Your task to perform on an android device: Clear the cart on newegg. Add "jbl flip 4" to the cart on newegg, then select checkout. Image 0: 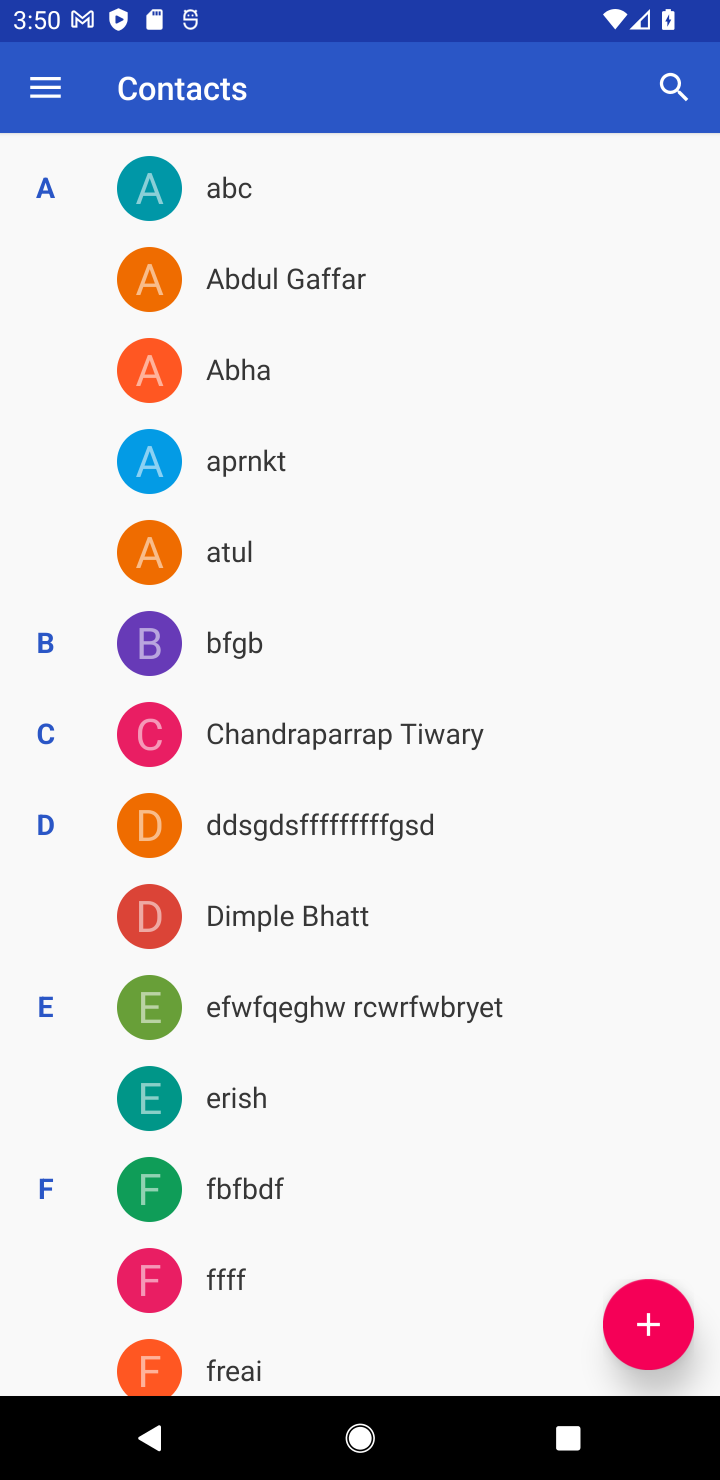
Step 0: press home button
Your task to perform on an android device: Clear the cart on newegg. Add "jbl flip 4" to the cart on newegg, then select checkout. Image 1: 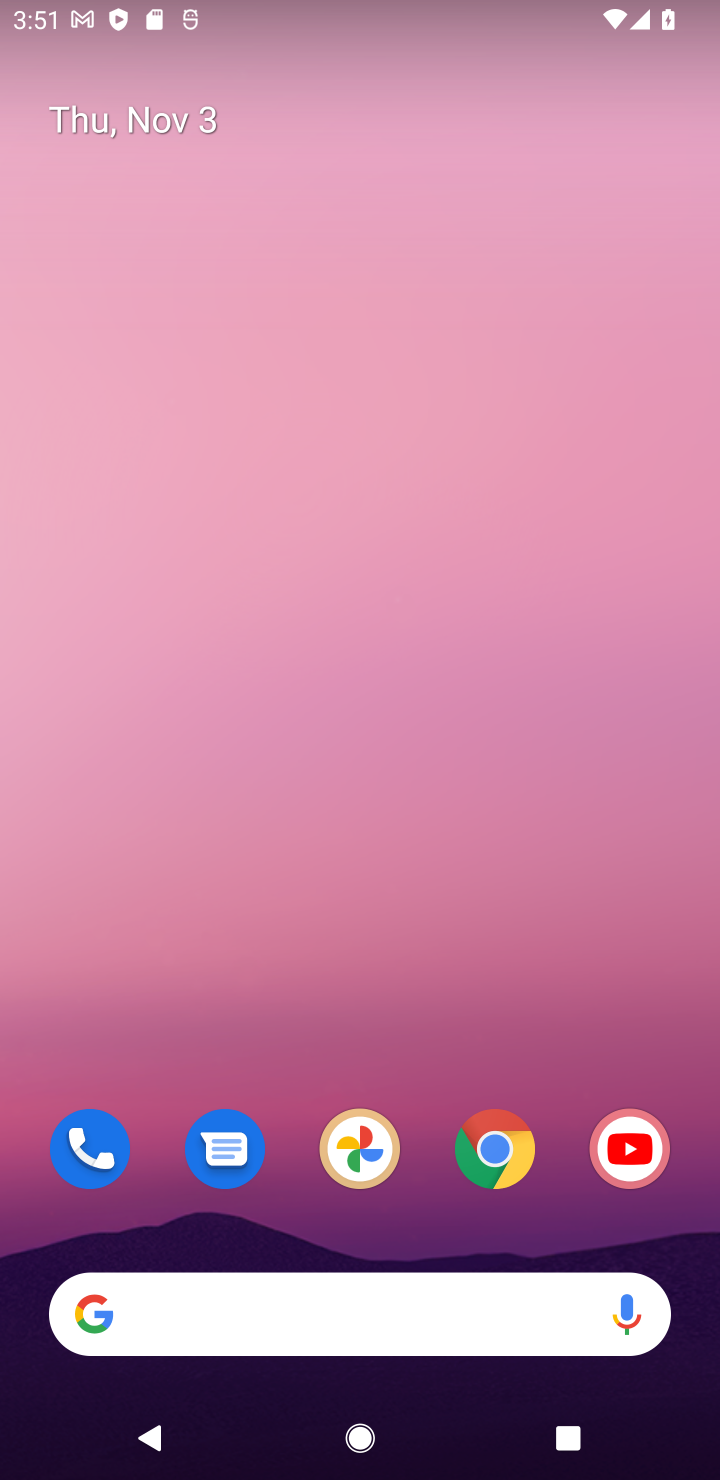
Step 1: drag from (416, 1092) to (373, 203)
Your task to perform on an android device: Clear the cart on newegg. Add "jbl flip 4" to the cart on newegg, then select checkout. Image 2: 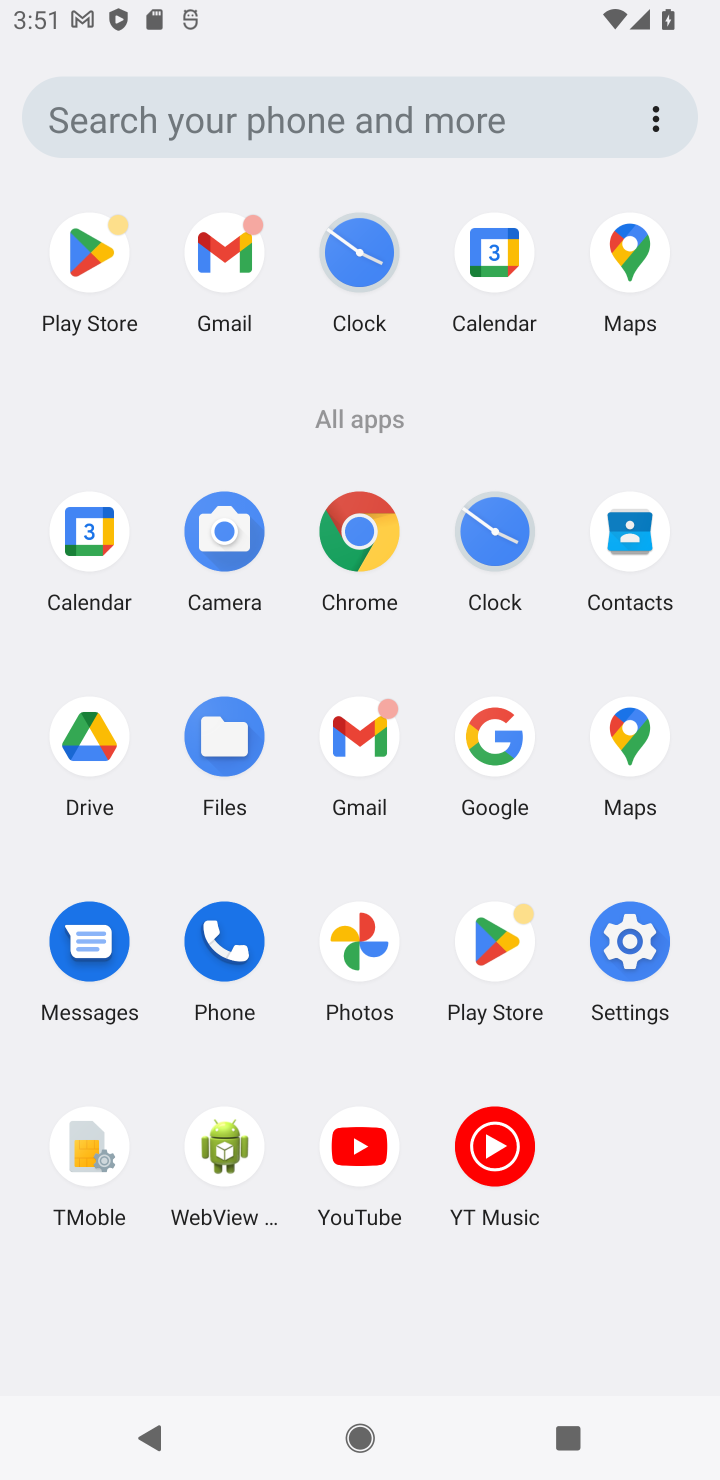
Step 2: click (345, 525)
Your task to perform on an android device: Clear the cart on newegg. Add "jbl flip 4" to the cart on newegg, then select checkout. Image 3: 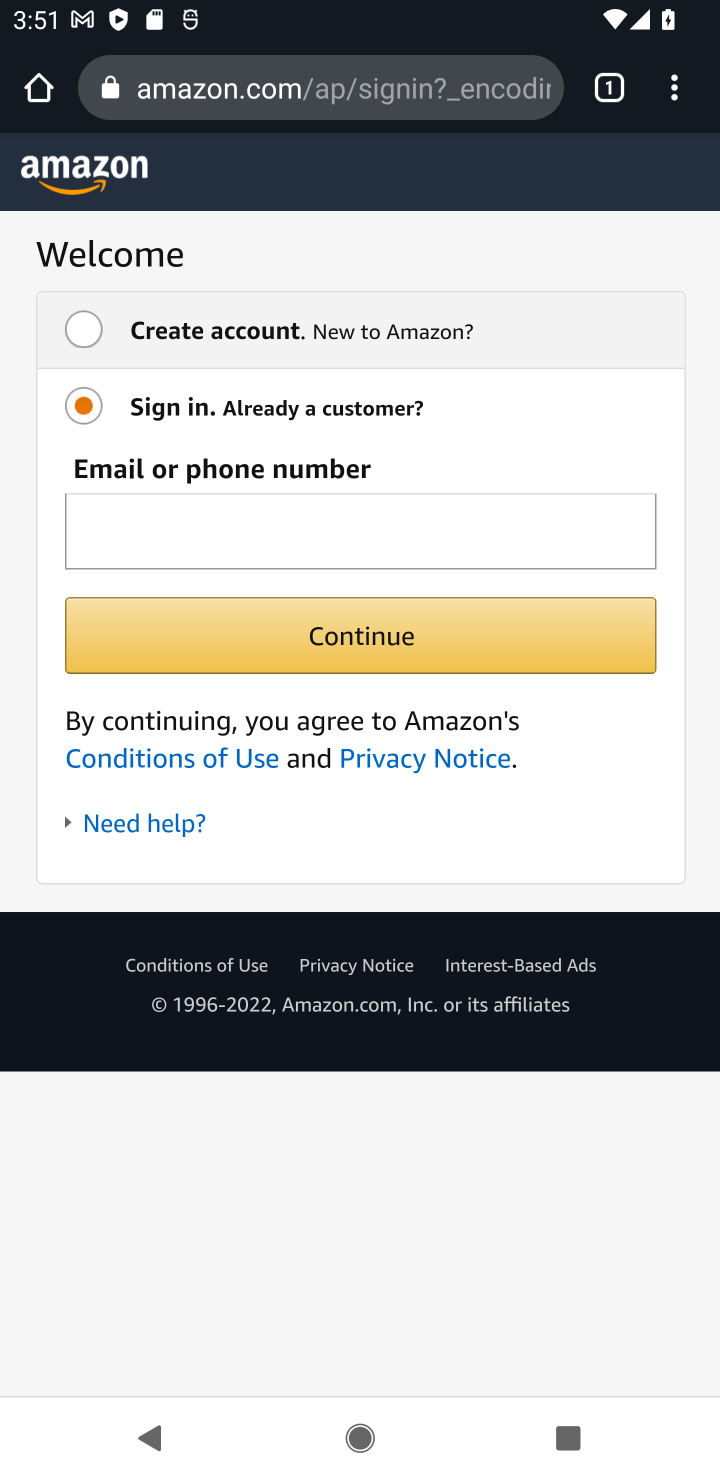
Step 3: click (271, 82)
Your task to perform on an android device: Clear the cart on newegg. Add "jbl flip 4" to the cart on newegg, then select checkout. Image 4: 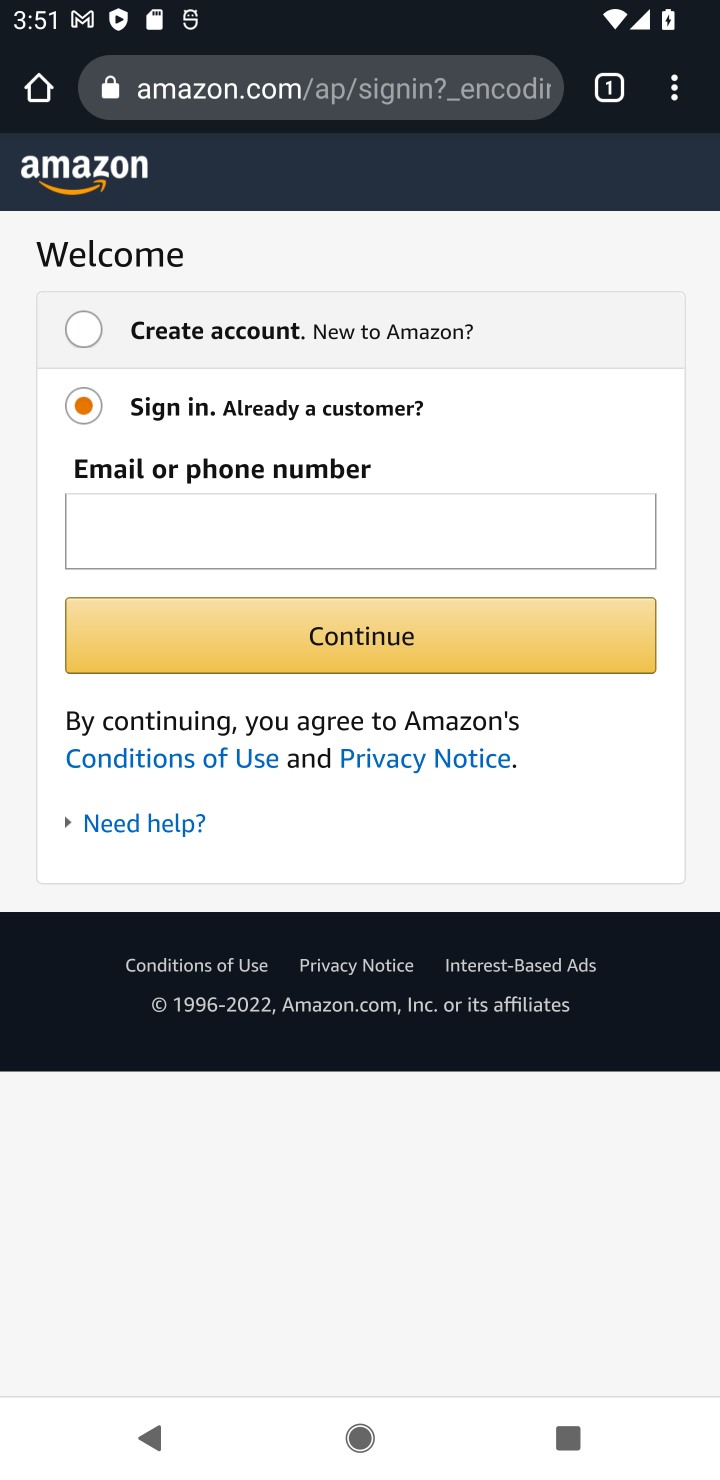
Step 4: click (271, 82)
Your task to perform on an android device: Clear the cart on newegg. Add "jbl flip 4" to the cart on newegg, then select checkout. Image 5: 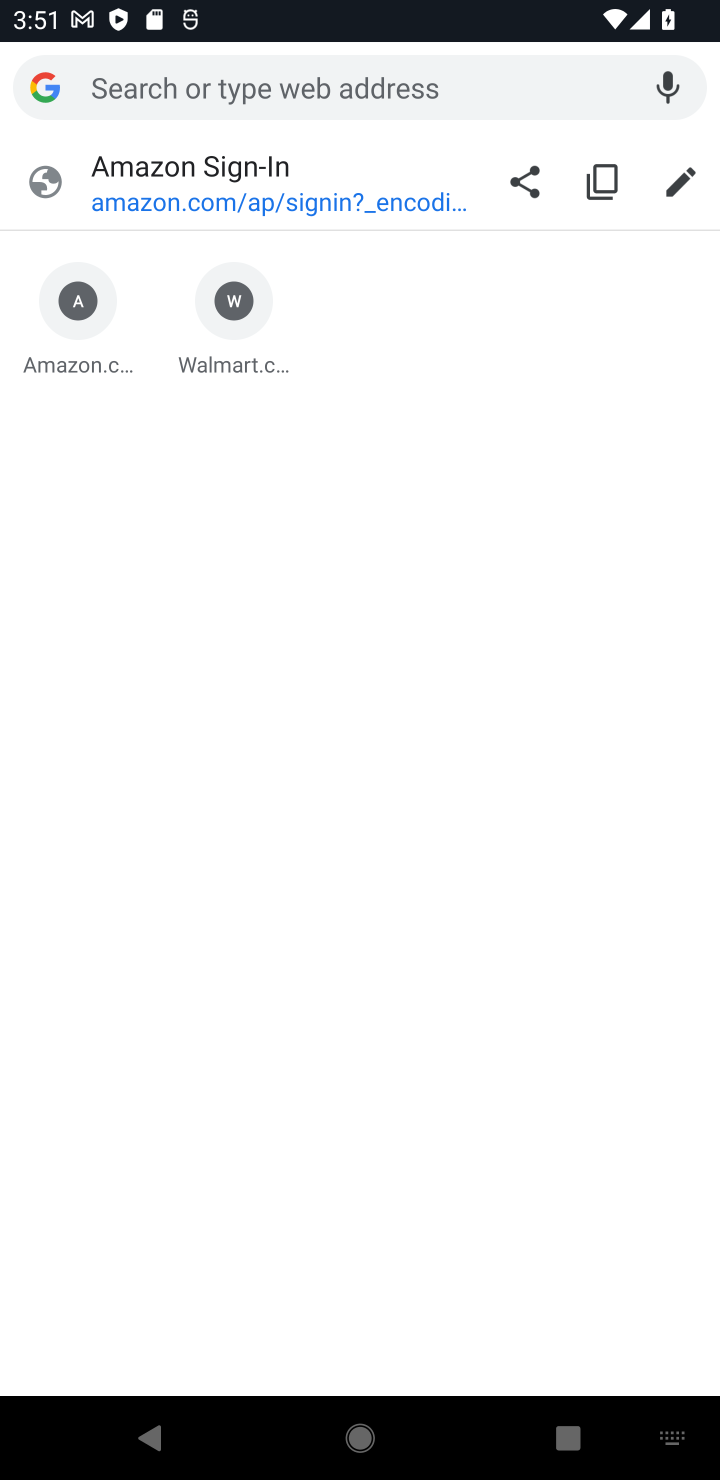
Step 5: type "newegg"
Your task to perform on an android device: Clear the cart on newegg. Add "jbl flip 4" to the cart on newegg, then select checkout. Image 6: 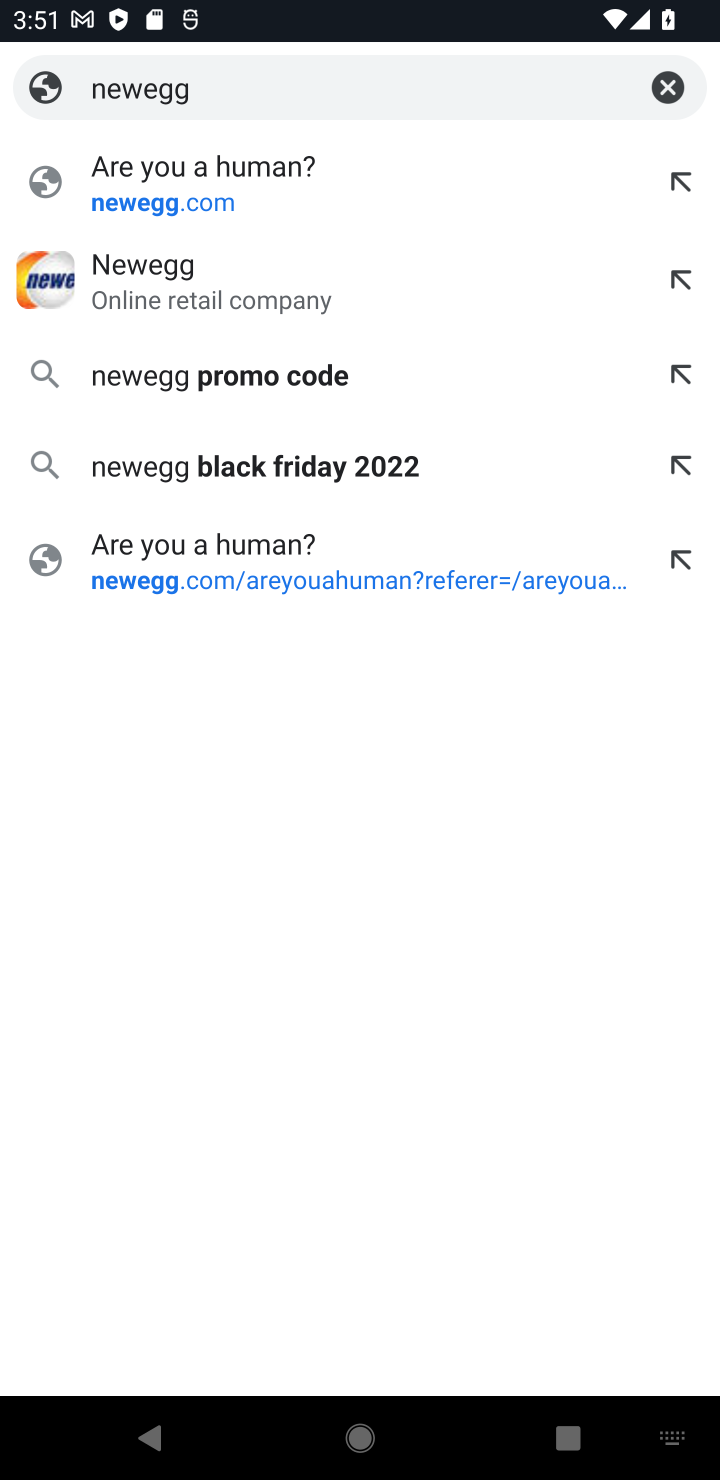
Step 6: click (260, 274)
Your task to perform on an android device: Clear the cart on newegg. Add "jbl flip 4" to the cart on newegg, then select checkout. Image 7: 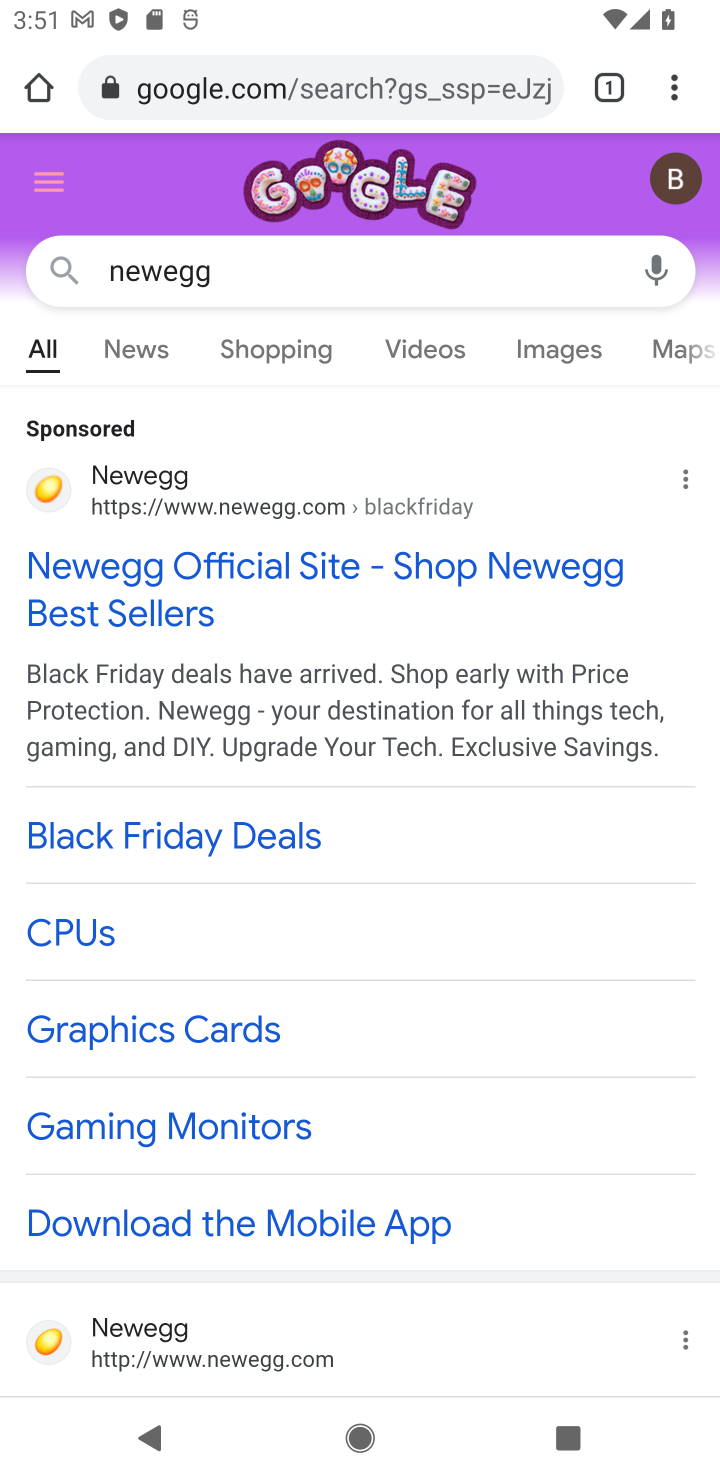
Step 7: click (194, 561)
Your task to perform on an android device: Clear the cart on newegg. Add "jbl flip 4" to the cart on newegg, then select checkout. Image 8: 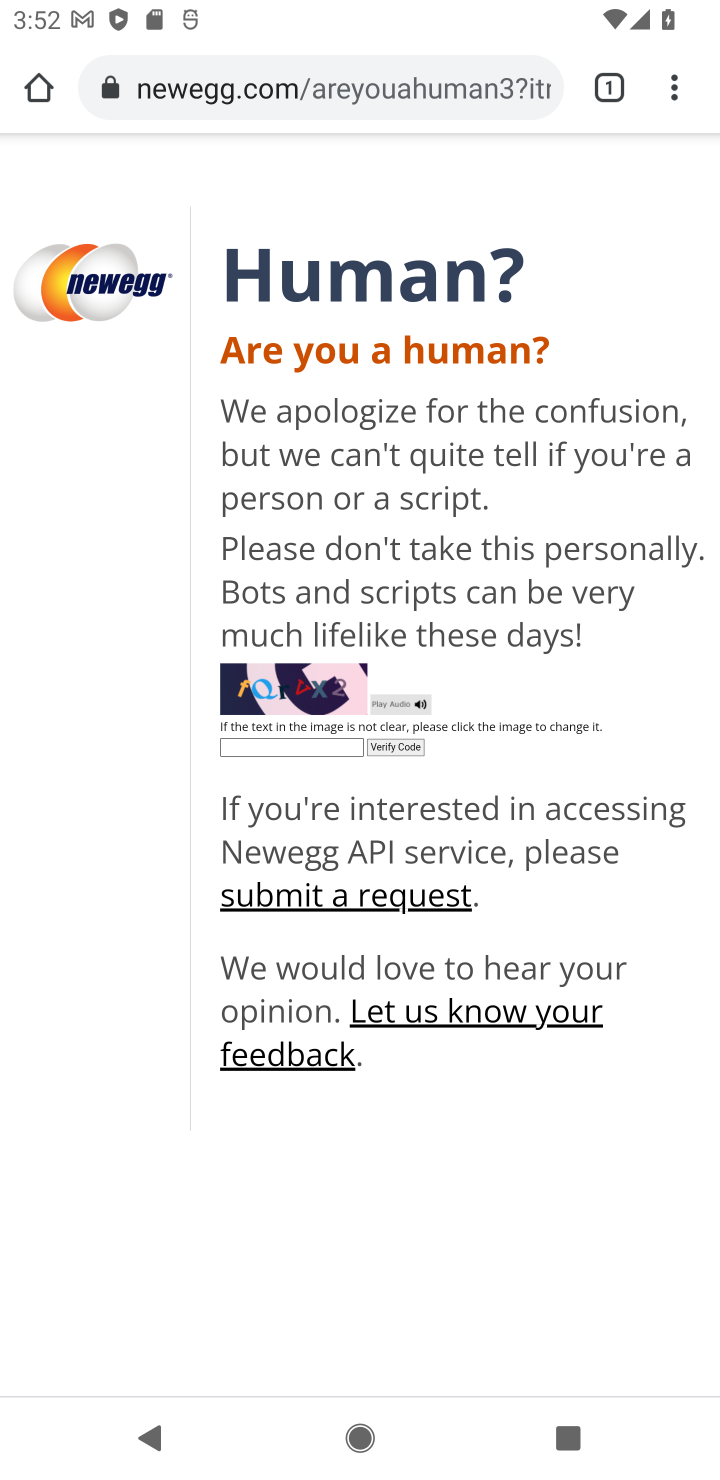
Step 8: press back button
Your task to perform on an android device: Clear the cart on newegg. Add "jbl flip 4" to the cart on newegg, then select checkout. Image 9: 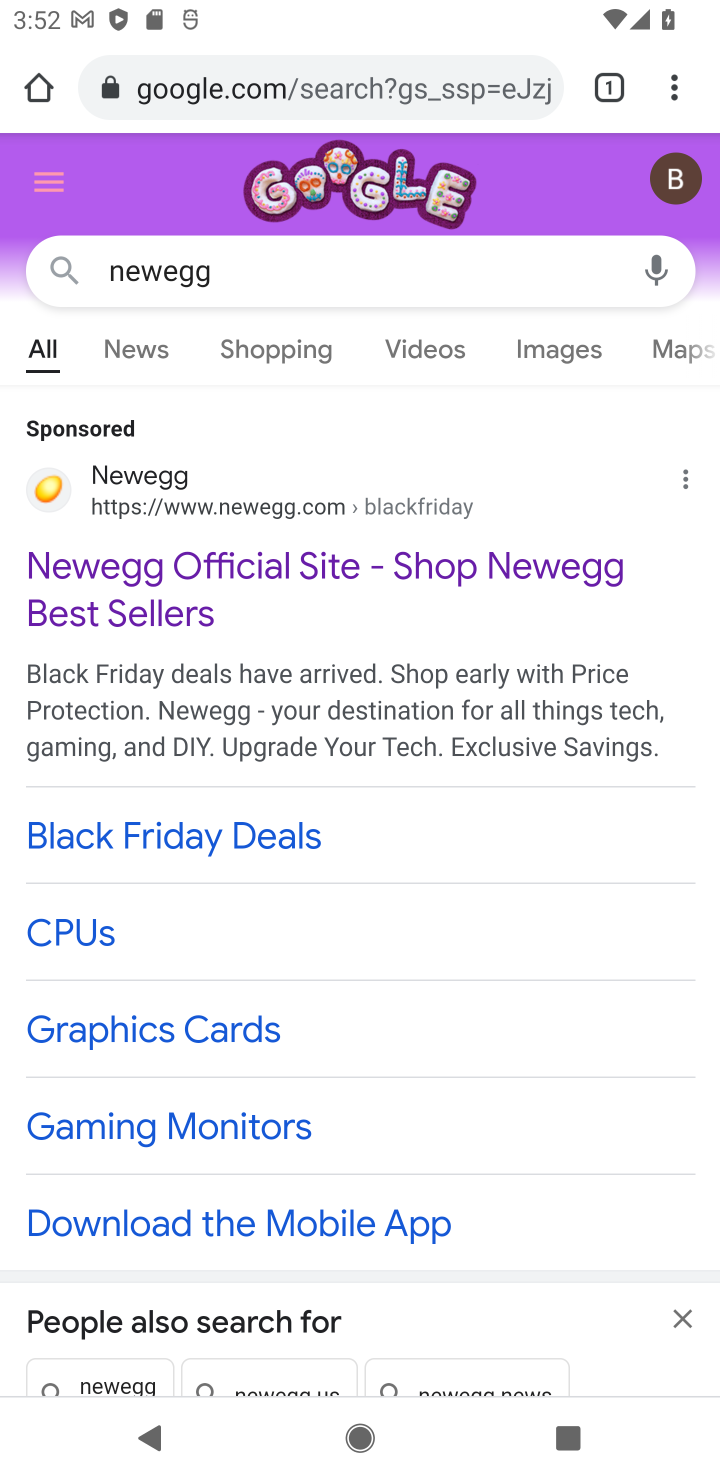
Step 9: drag from (525, 1256) to (443, 296)
Your task to perform on an android device: Clear the cart on newegg. Add "jbl flip 4" to the cart on newegg, then select checkout. Image 10: 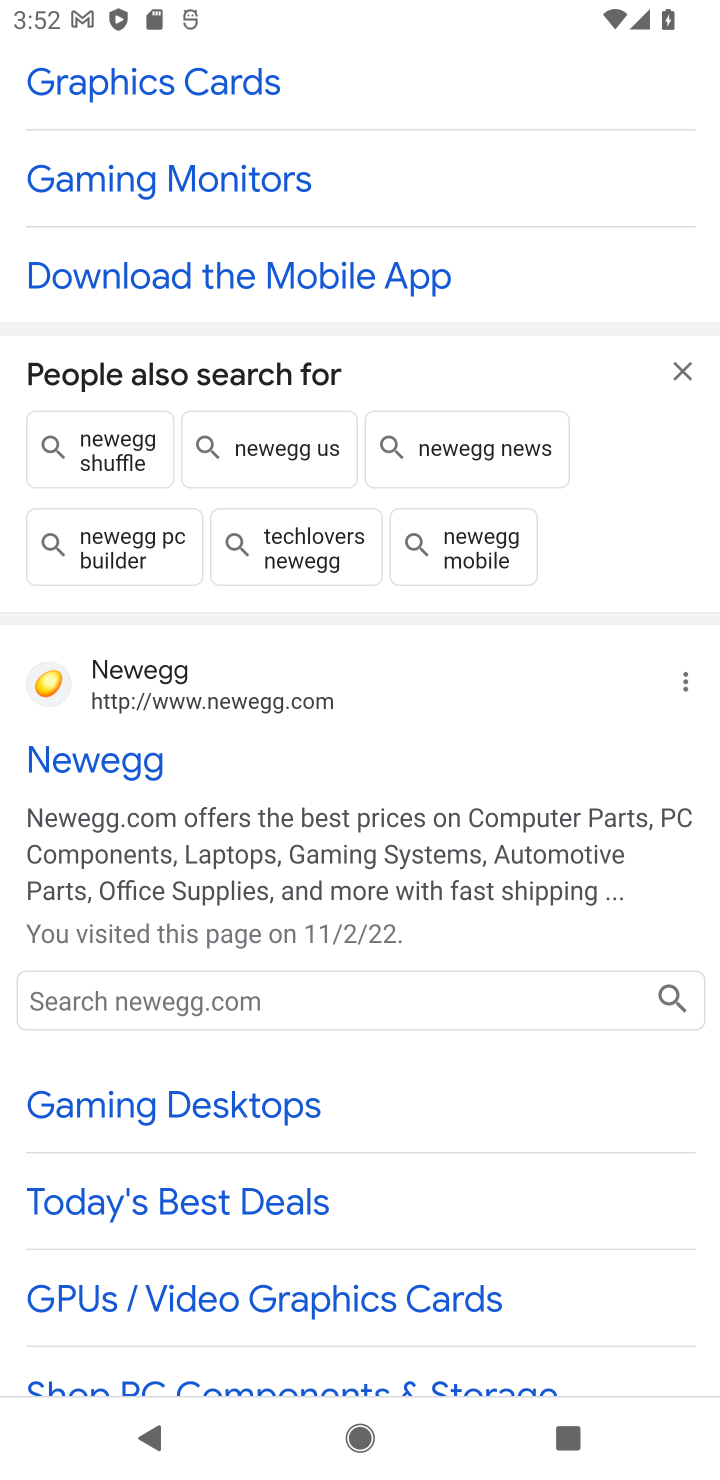
Step 10: click (136, 758)
Your task to perform on an android device: Clear the cart on newegg. Add "jbl flip 4" to the cart on newegg, then select checkout. Image 11: 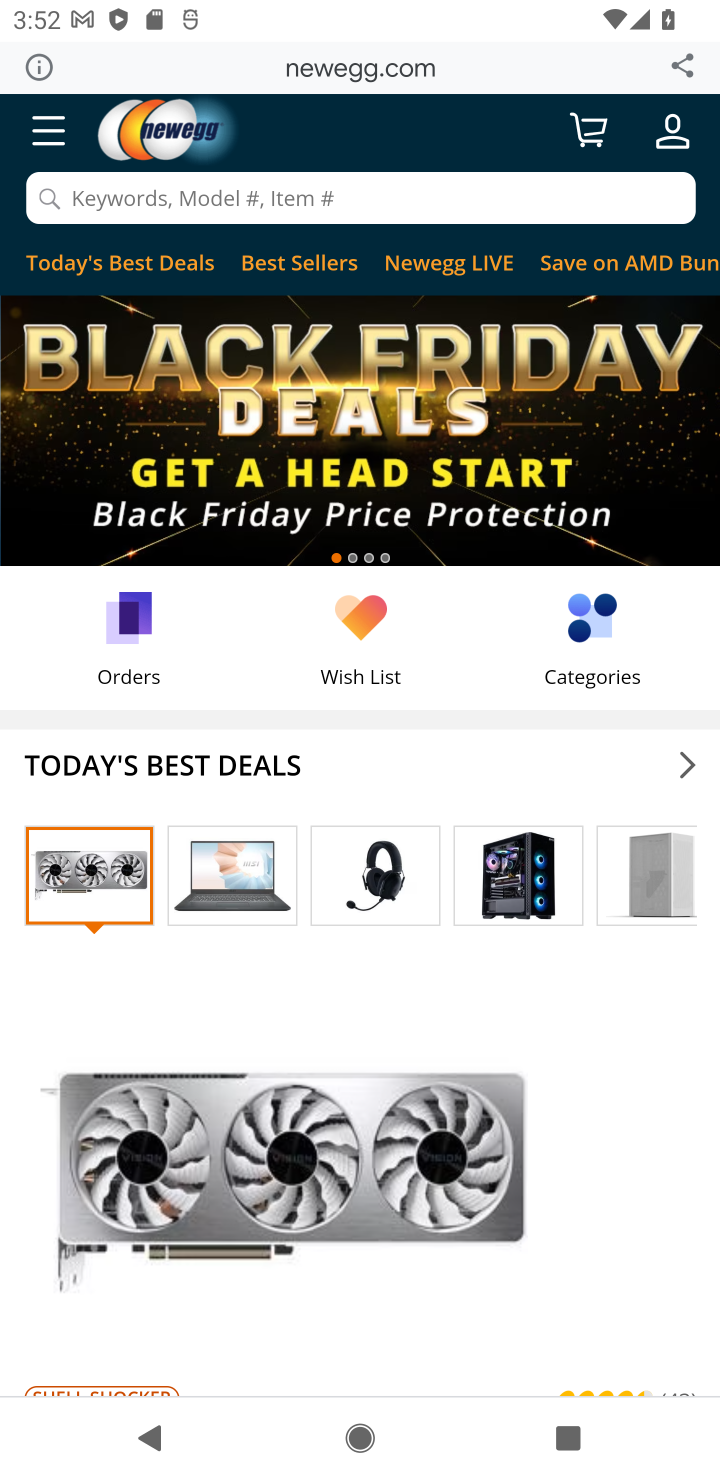
Step 11: click (129, 189)
Your task to perform on an android device: Clear the cart on newegg. Add "jbl flip 4" to the cart on newegg, then select checkout. Image 12: 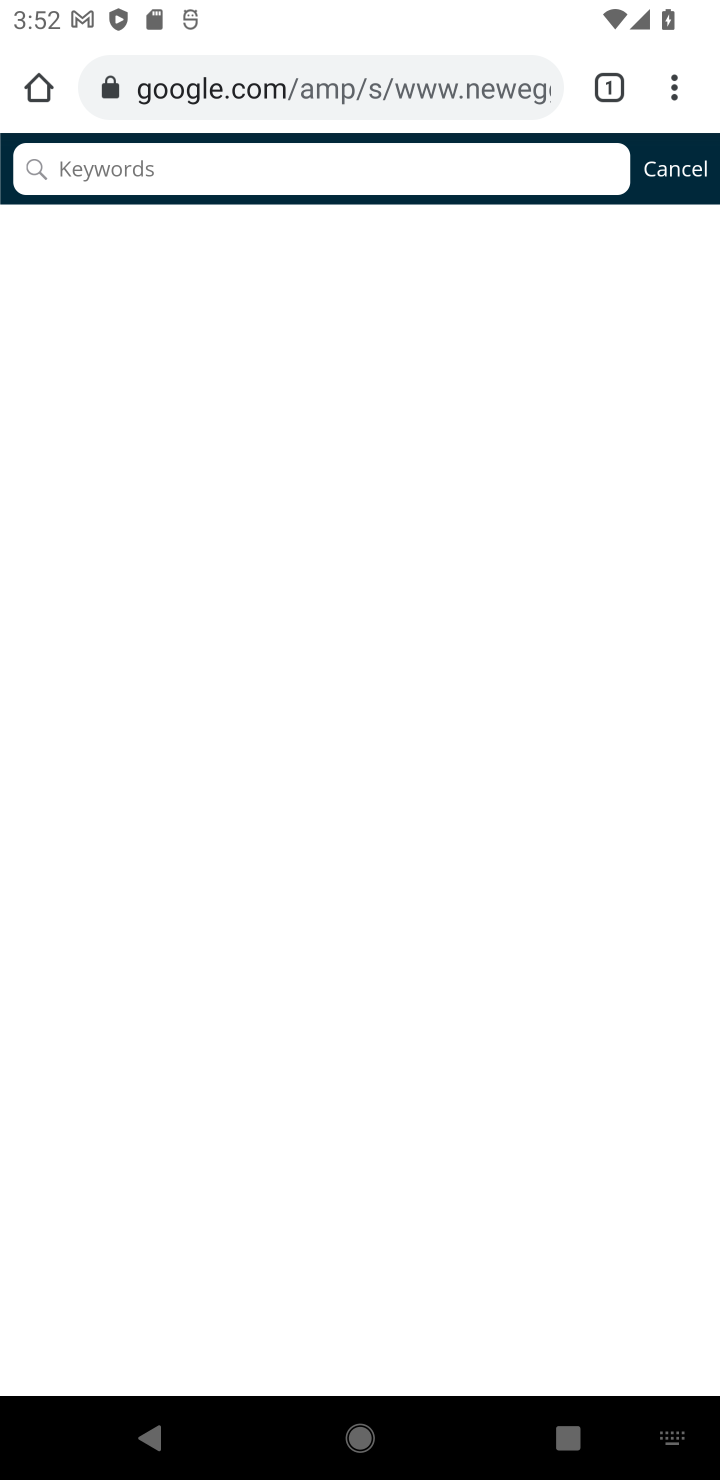
Step 12: type "jbl flip 4"
Your task to perform on an android device: Clear the cart on newegg. Add "jbl flip 4" to the cart on newegg, then select checkout. Image 13: 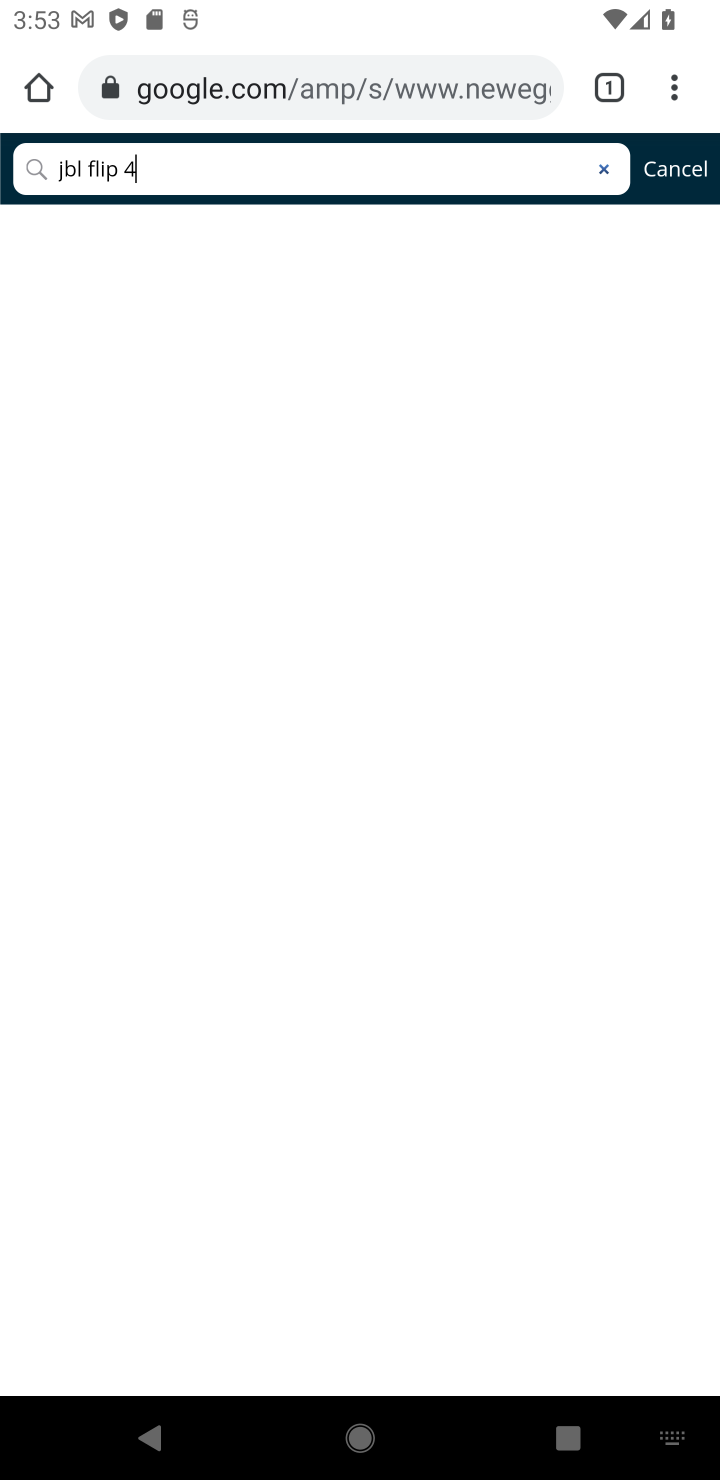
Step 13: task complete